Your task to perform on an android device: check storage Image 0: 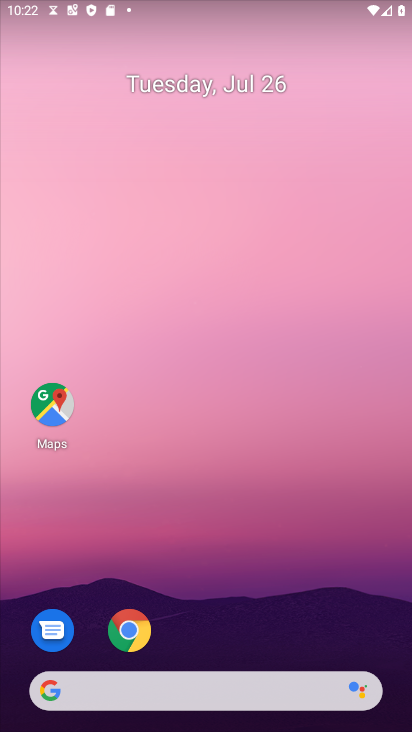
Step 0: press home button
Your task to perform on an android device: check storage Image 1: 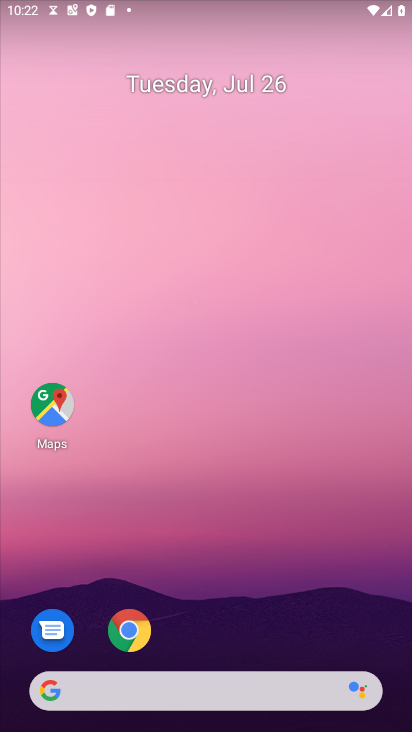
Step 1: drag from (172, 521) to (166, 91)
Your task to perform on an android device: check storage Image 2: 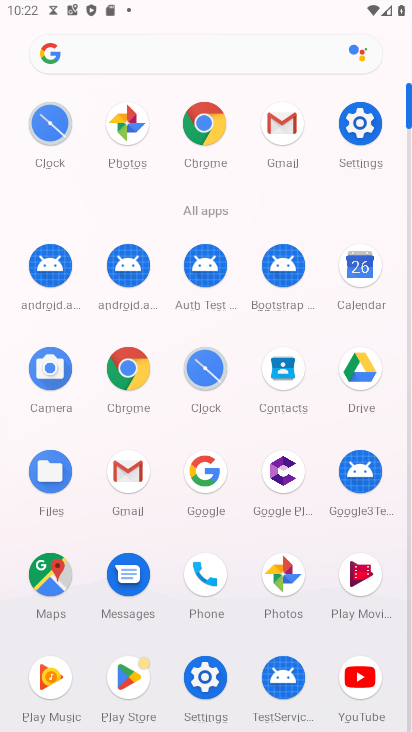
Step 2: click (350, 113)
Your task to perform on an android device: check storage Image 3: 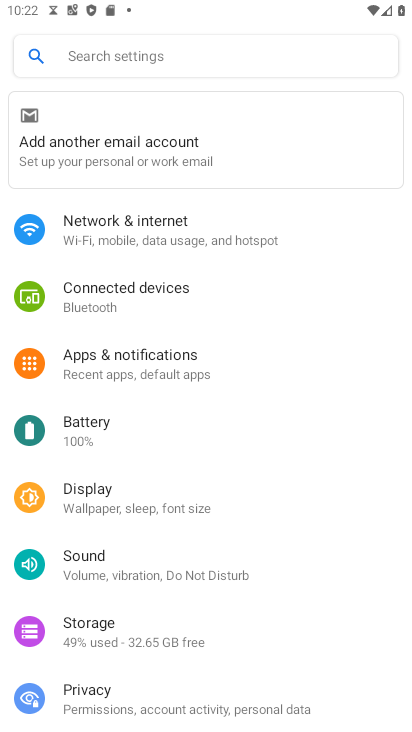
Step 3: click (102, 634)
Your task to perform on an android device: check storage Image 4: 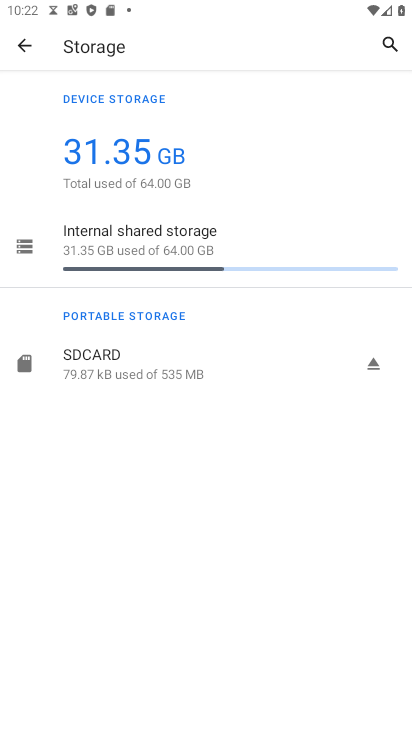
Step 4: task complete